Your task to perform on an android device: Open CNN.com Image 0: 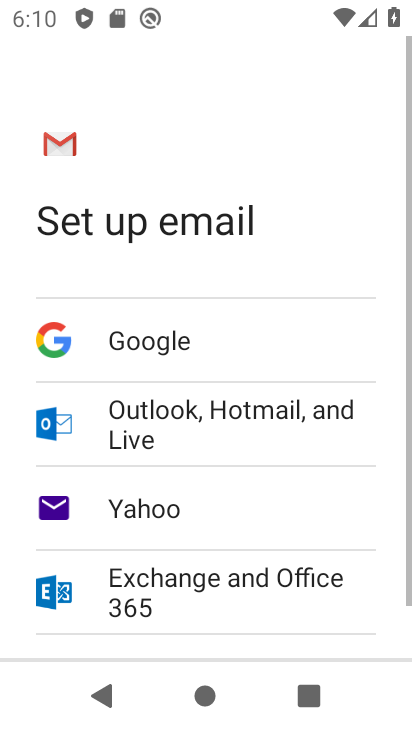
Step 0: press home button
Your task to perform on an android device: Open CNN.com Image 1: 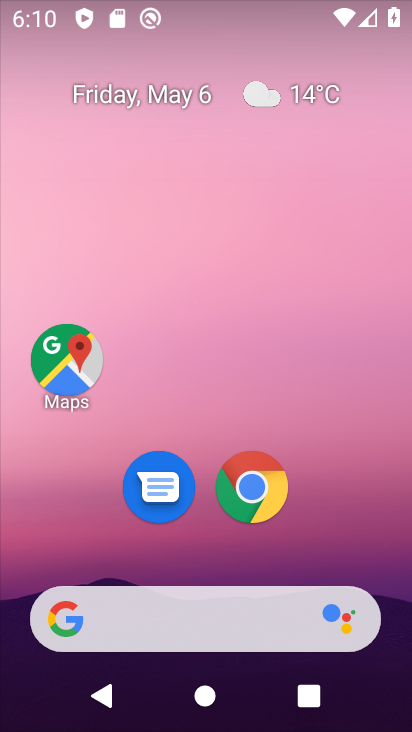
Step 1: click (268, 486)
Your task to perform on an android device: Open CNN.com Image 2: 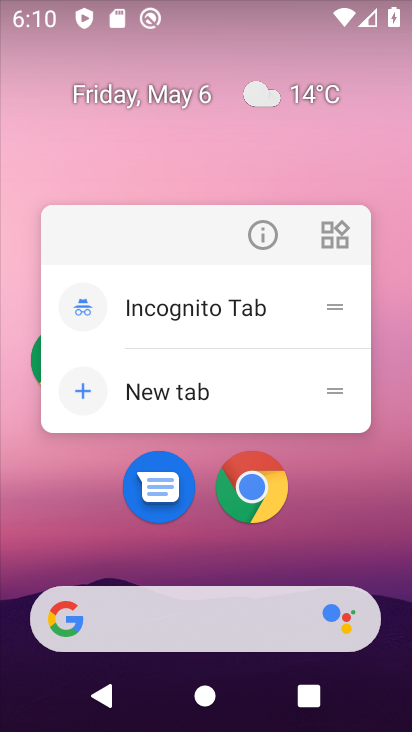
Step 2: drag from (271, 538) to (349, 73)
Your task to perform on an android device: Open CNN.com Image 3: 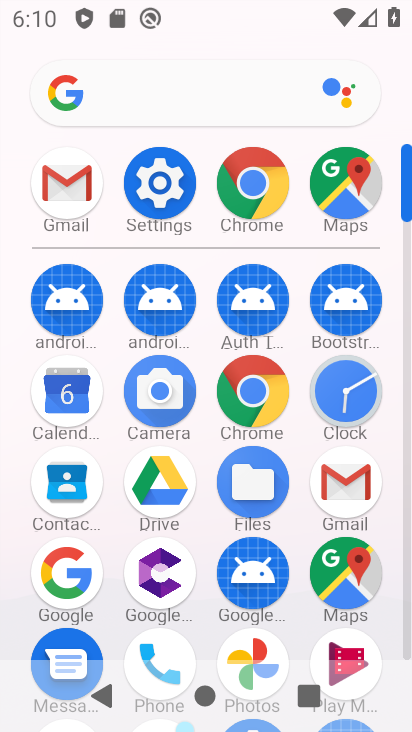
Step 3: click (245, 381)
Your task to perform on an android device: Open CNN.com Image 4: 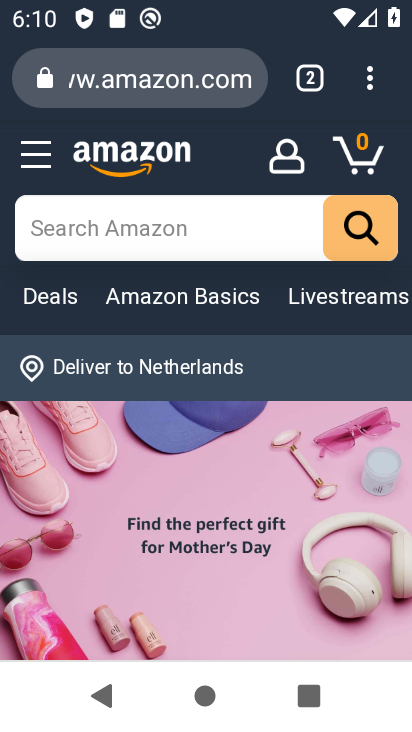
Step 4: click (201, 84)
Your task to perform on an android device: Open CNN.com Image 5: 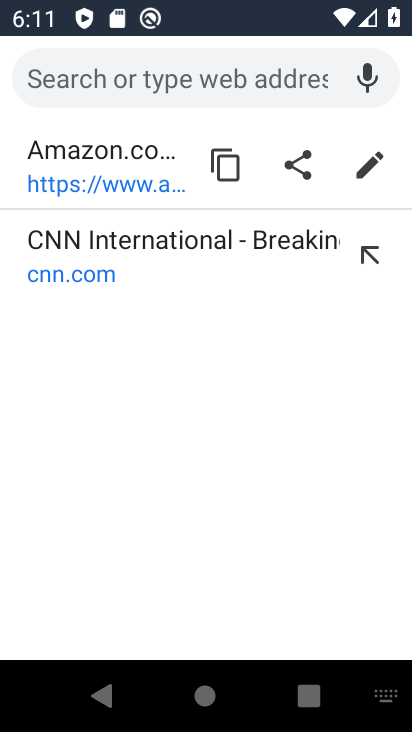
Step 5: type " CNN.com"
Your task to perform on an android device: Open CNN.com Image 6: 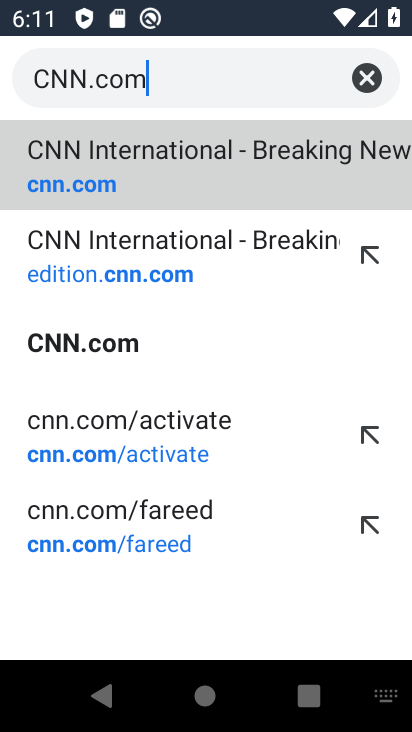
Step 6: click (95, 188)
Your task to perform on an android device: Open CNN.com Image 7: 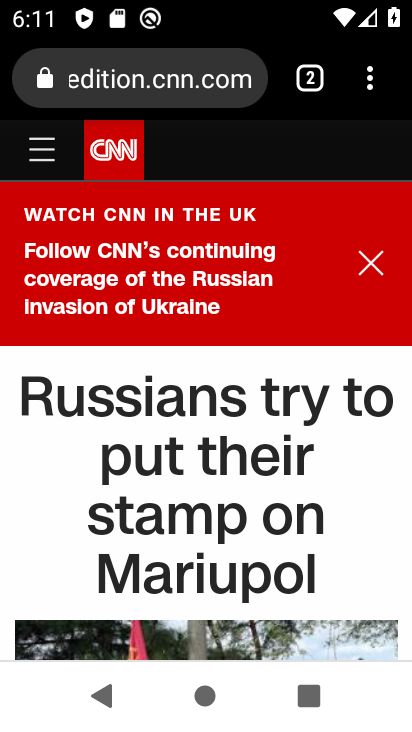
Step 7: task complete